Your task to perform on an android device: empty trash in google photos Image 0: 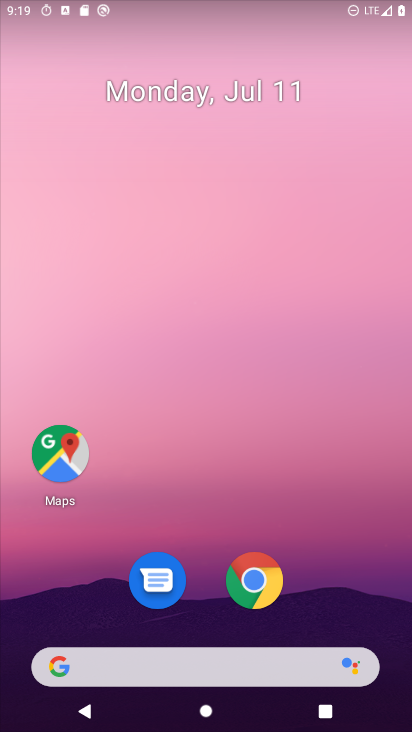
Step 0: drag from (328, 543) to (307, 40)
Your task to perform on an android device: empty trash in google photos Image 1: 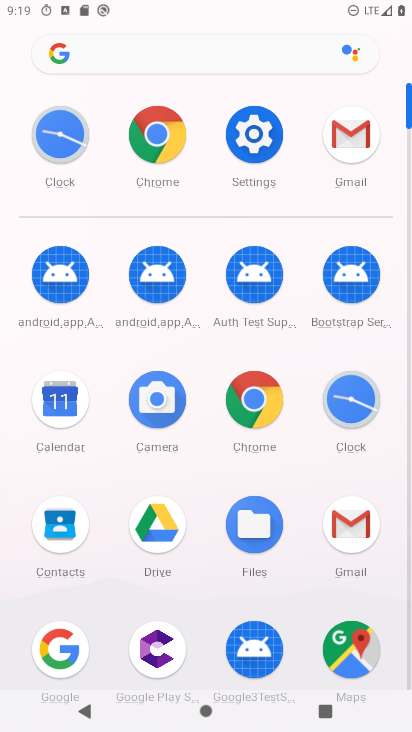
Step 1: drag from (305, 467) to (277, 131)
Your task to perform on an android device: empty trash in google photos Image 2: 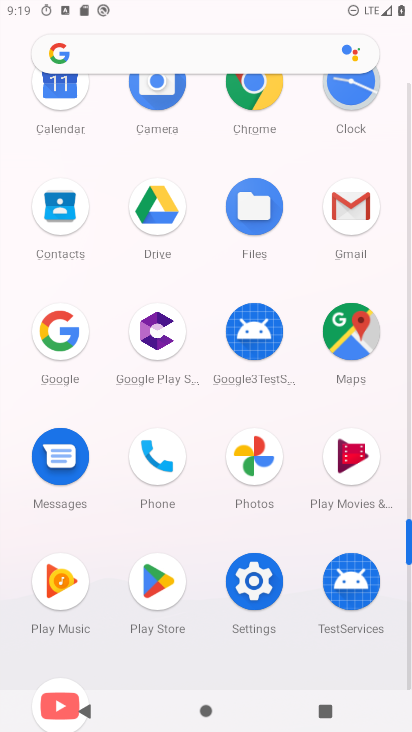
Step 2: click (261, 442)
Your task to perform on an android device: empty trash in google photos Image 3: 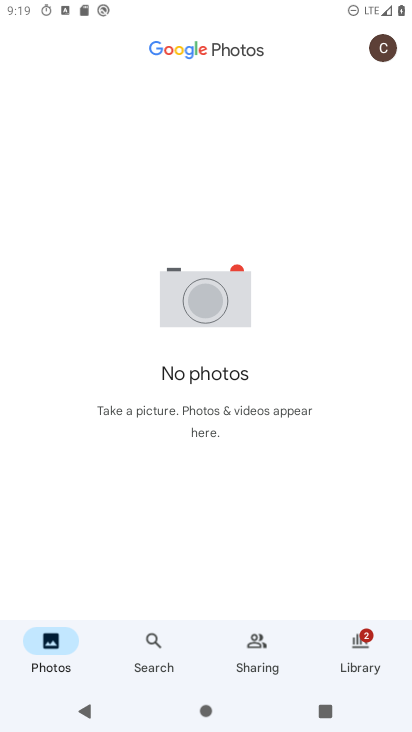
Step 3: click (144, 643)
Your task to perform on an android device: empty trash in google photos Image 4: 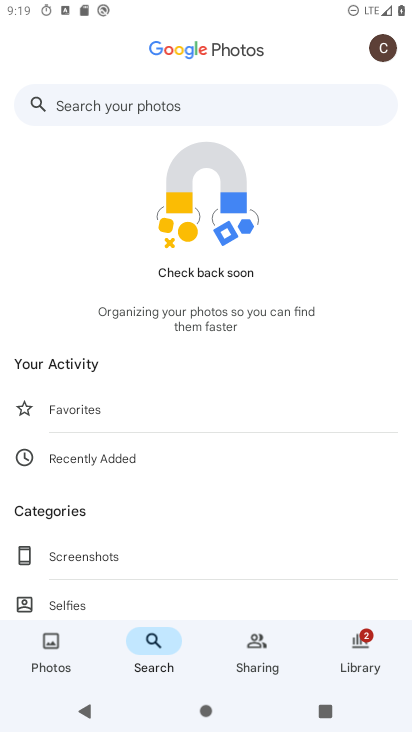
Step 4: click (231, 91)
Your task to perform on an android device: empty trash in google photos Image 5: 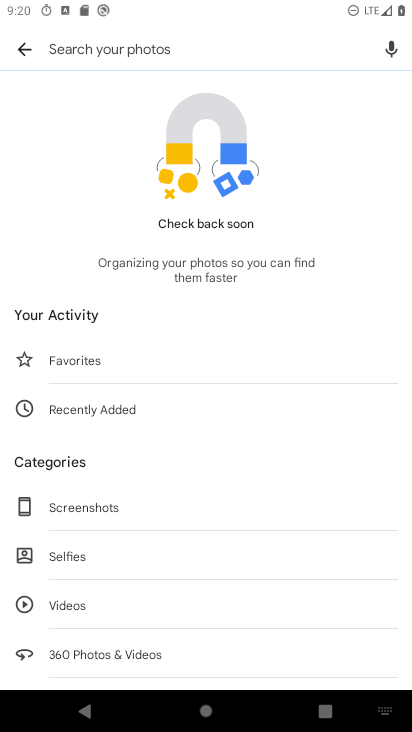
Step 5: type "trash"
Your task to perform on an android device: empty trash in google photos Image 6: 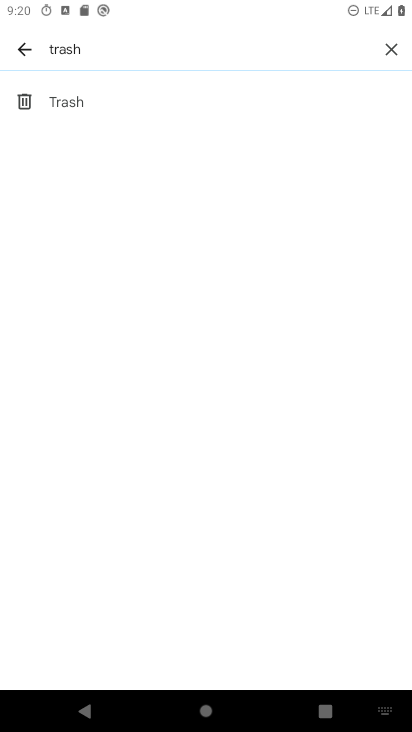
Step 6: click (55, 95)
Your task to perform on an android device: empty trash in google photos Image 7: 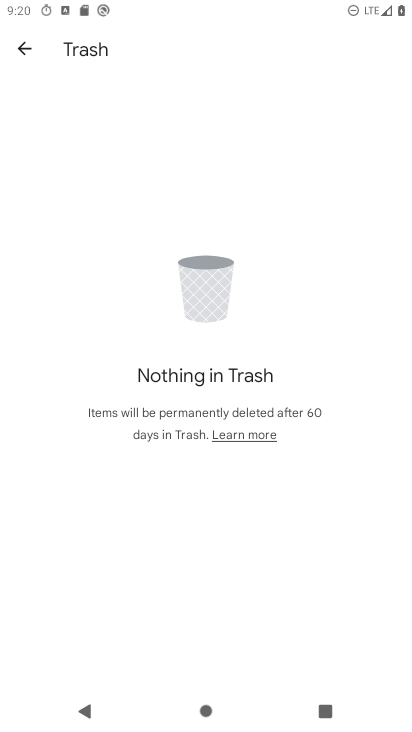
Step 7: task complete